Your task to perform on an android device: Go to internet settings Image 0: 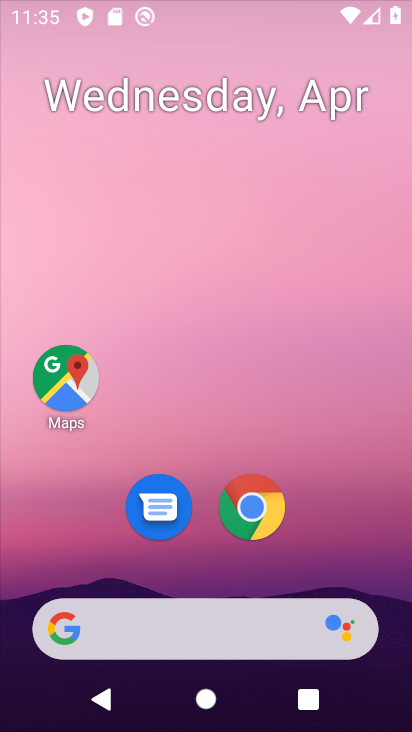
Step 0: drag from (373, 564) to (267, 57)
Your task to perform on an android device: Go to internet settings Image 1: 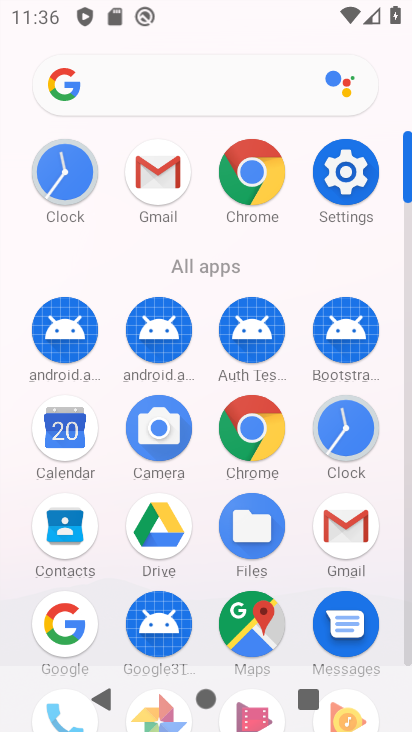
Step 1: click (362, 158)
Your task to perform on an android device: Go to internet settings Image 2: 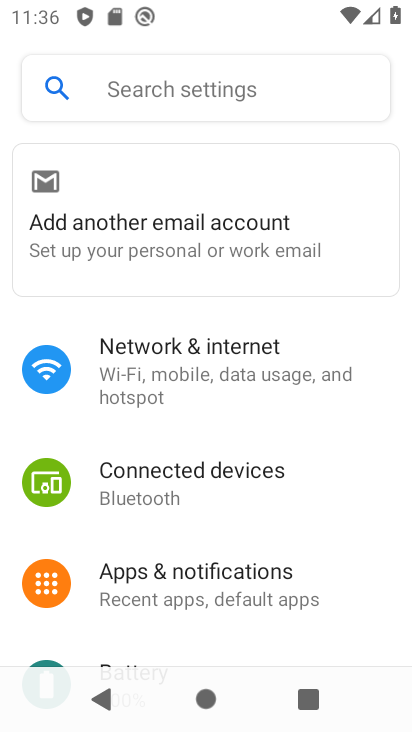
Step 2: click (128, 397)
Your task to perform on an android device: Go to internet settings Image 3: 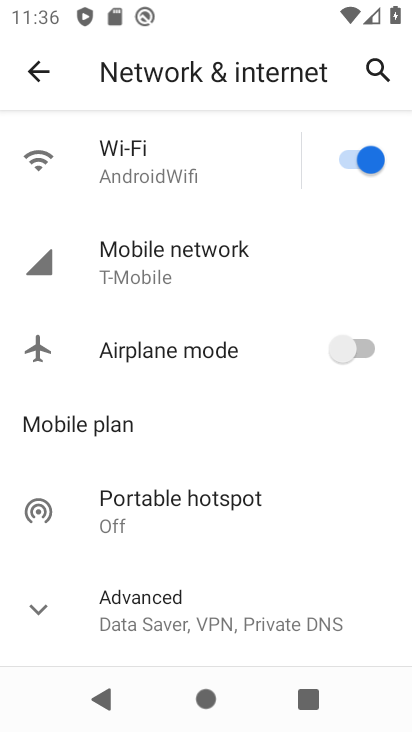
Step 3: task complete